Your task to perform on an android device: open device folders in google photos Image 0: 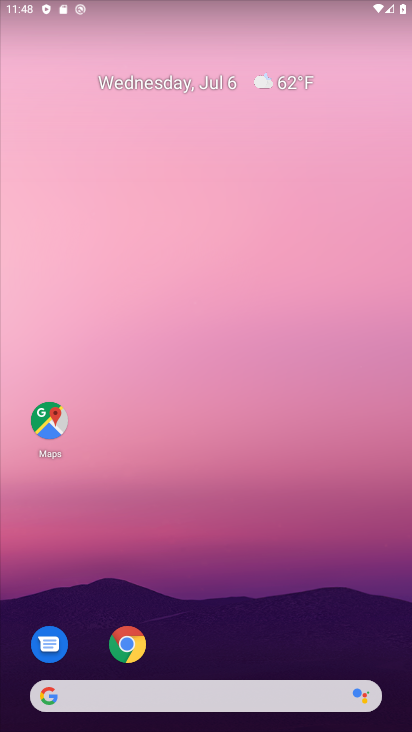
Step 0: drag from (25, 619) to (305, 83)
Your task to perform on an android device: open device folders in google photos Image 1: 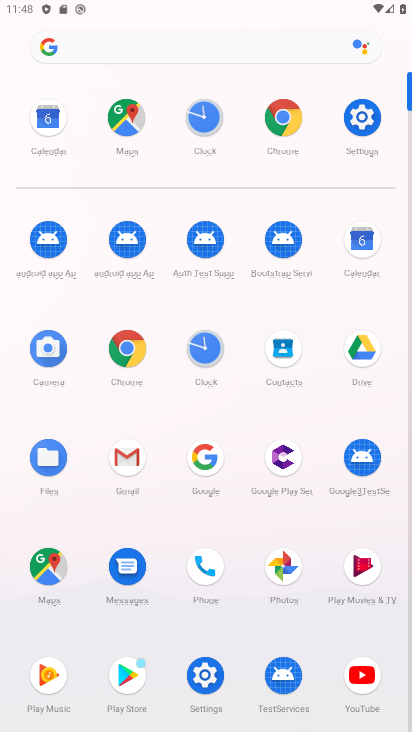
Step 1: click (286, 571)
Your task to perform on an android device: open device folders in google photos Image 2: 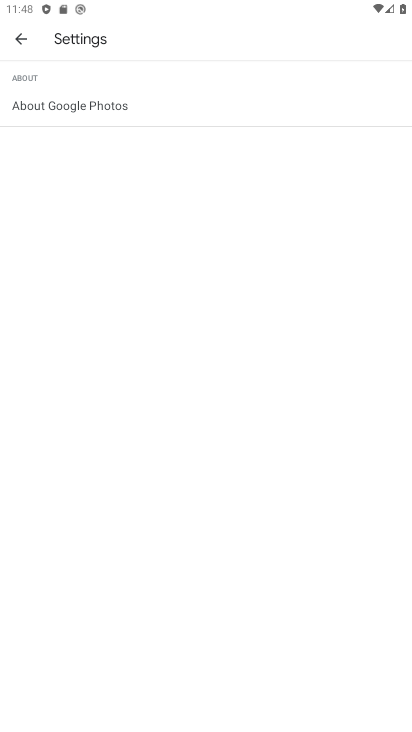
Step 2: click (25, 30)
Your task to perform on an android device: open device folders in google photos Image 3: 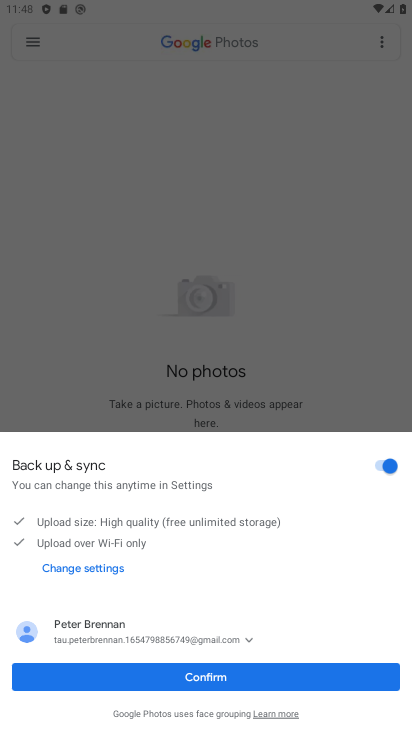
Step 3: click (298, 676)
Your task to perform on an android device: open device folders in google photos Image 4: 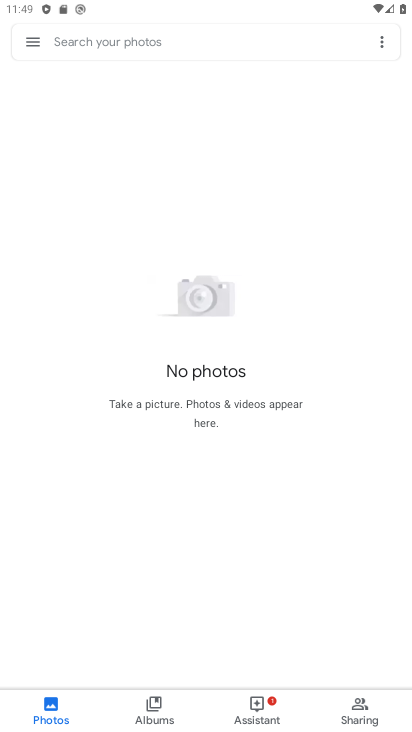
Step 4: click (22, 41)
Your task to perform on an android device: open device folders in google photos Image 5: 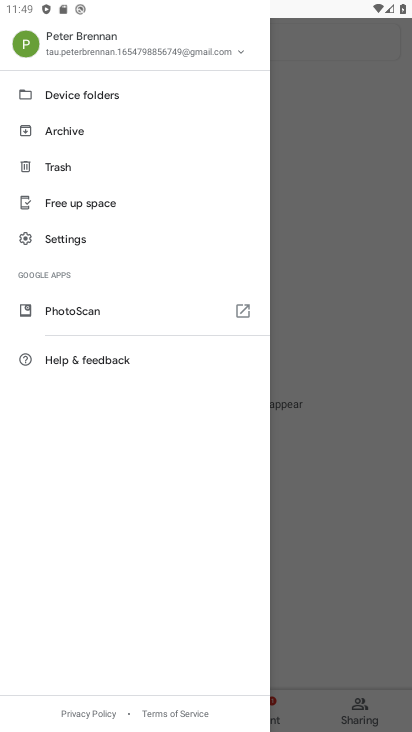
Step 5: click (109, 82)
Your task to perform on an android device: open device folders in google photos Image 6: 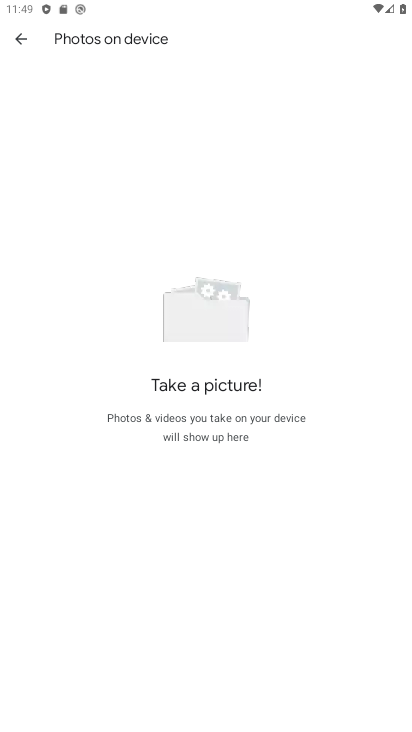
Step 6: task complete